Your task to perform on an android device: open app "Gmail" (install if not already installed) Image 0: 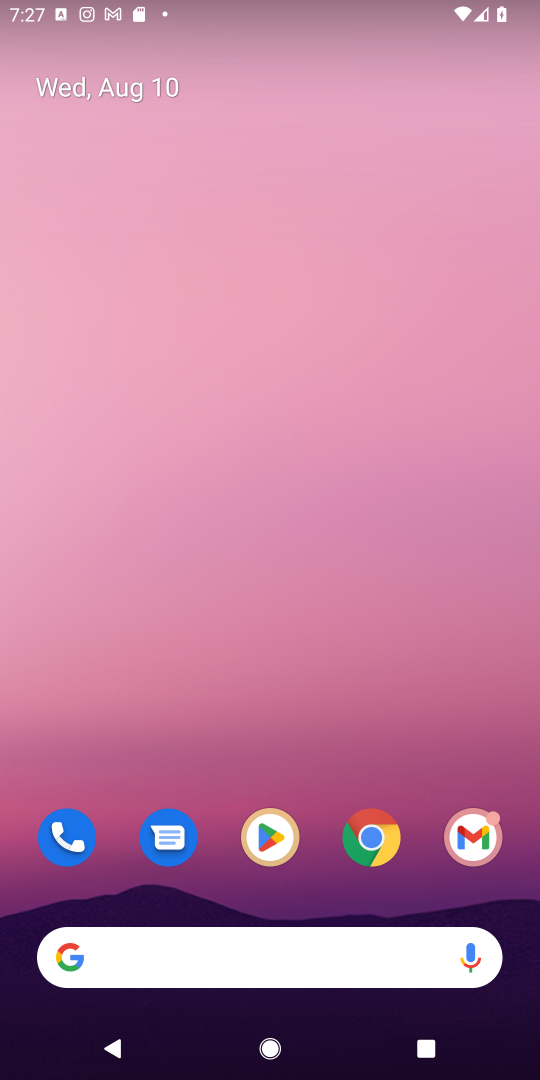
Step 0: press home button
Your task to perform on an android device: open app "Gmail" (install if not already installed) Image 1: 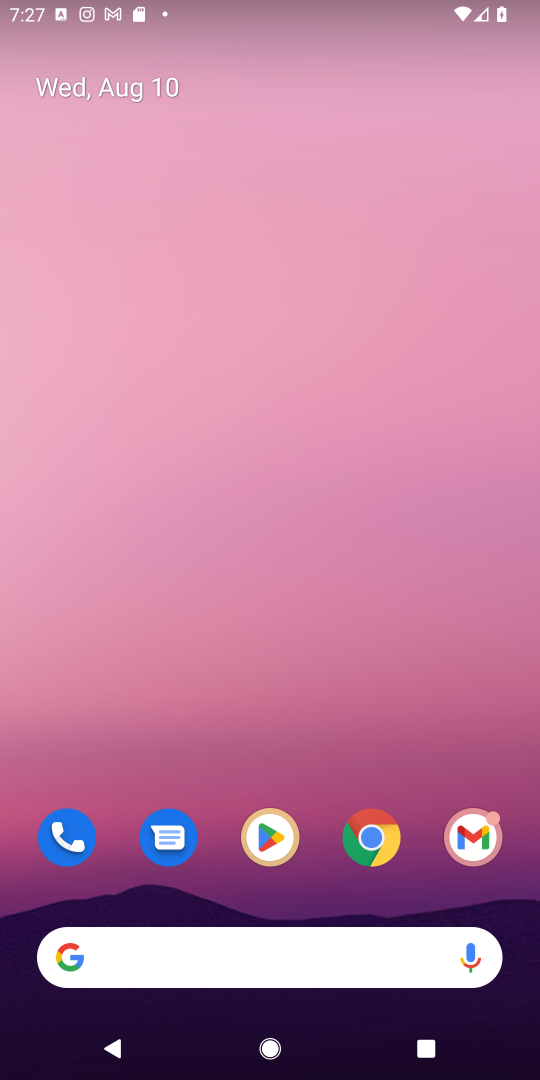
Step 1: click (260, 839)
Your task to perform on an android device: open app "Gmail" (install if not already installed) Image 2: 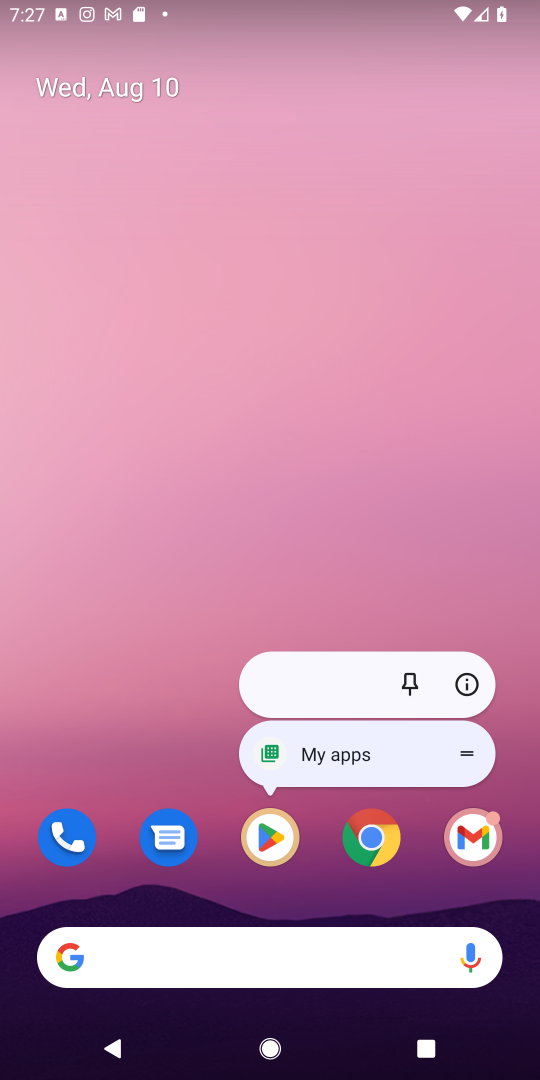
Step 2: click (264, 835)
Your task to perform on an android device: open app "Gmail" (install if not already installed) Image 3: 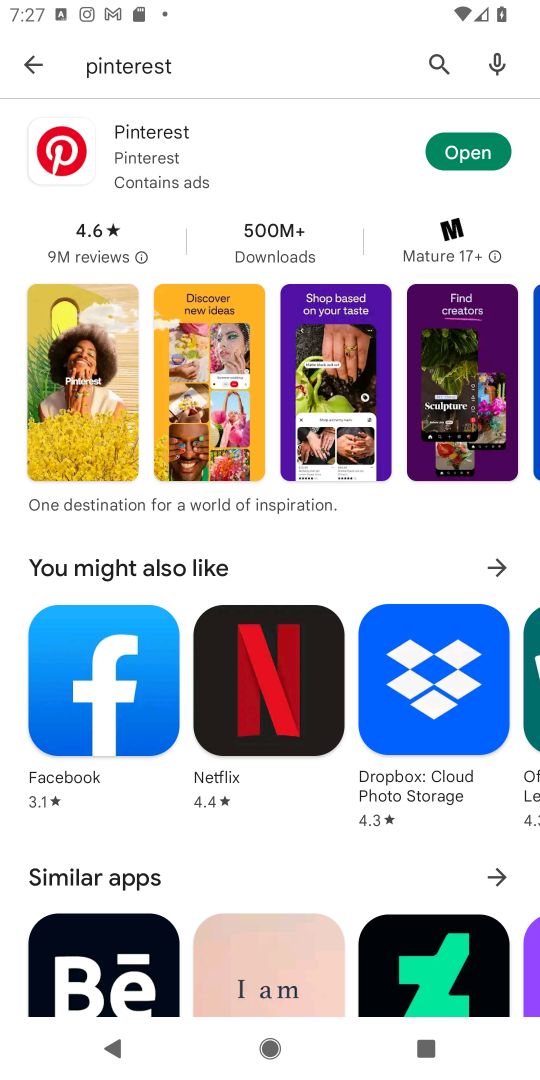
Step 3: click (443, 55)
Your task to perform on an android device: open app "Gmail" (install if not already installed) Image 4: 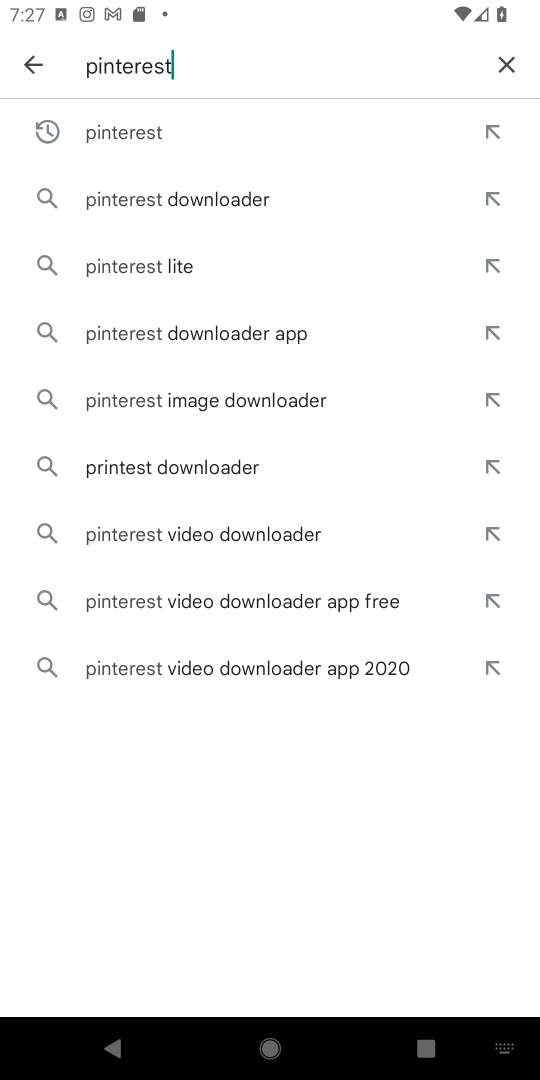
Step 4: click (499, 65)
Your task to perform on an android device: open app "Gmail" (install if not already installed) Image 5: 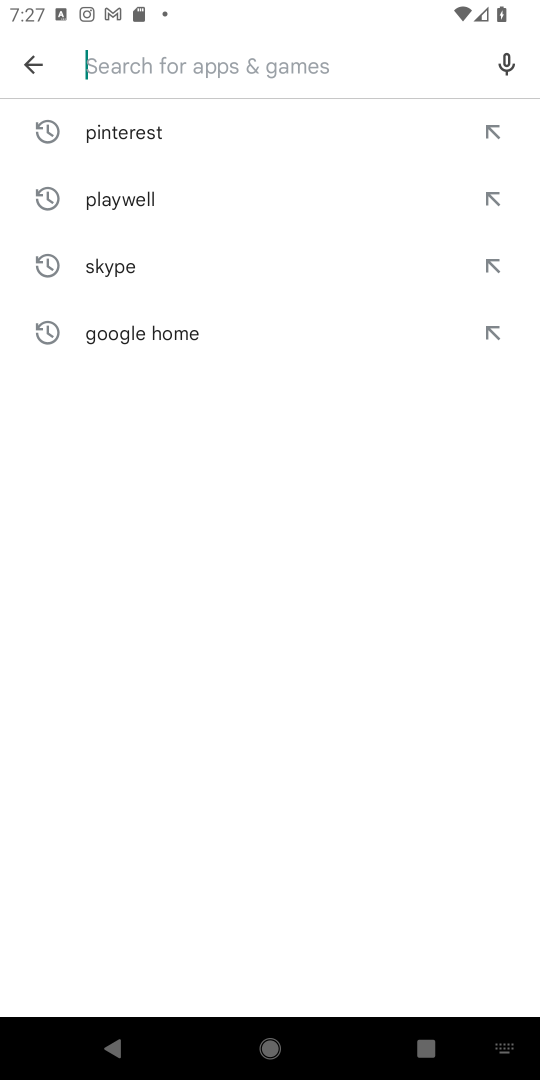
Step 5: type "Gmail"
Your task to perform on an android device: open app "Gmail" (install if not already installed) Image 6: 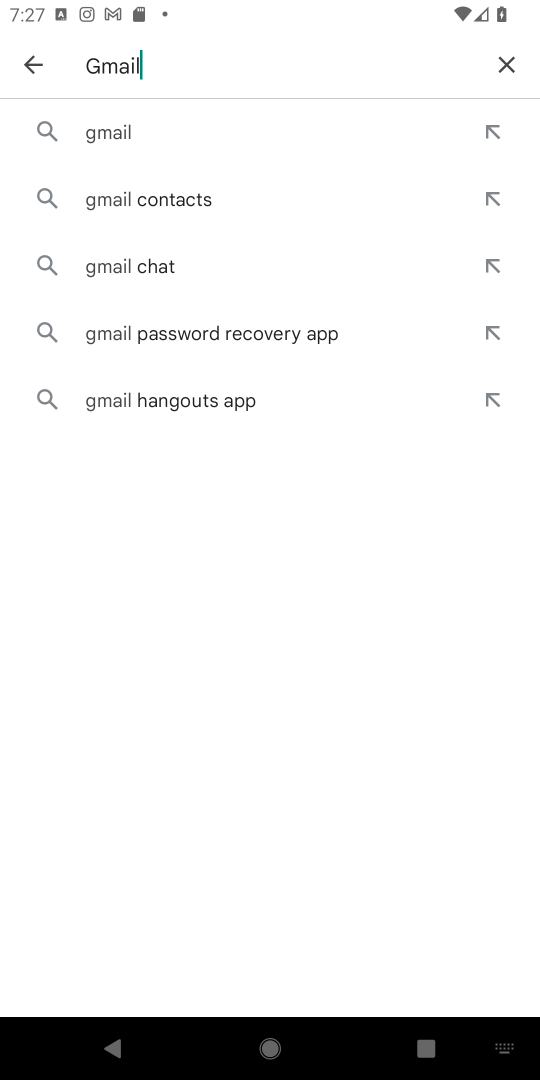
Step 6: click (121, 125)
Your task to perform on an android device: open app "Gmail" (install if not already installed) Image 7: 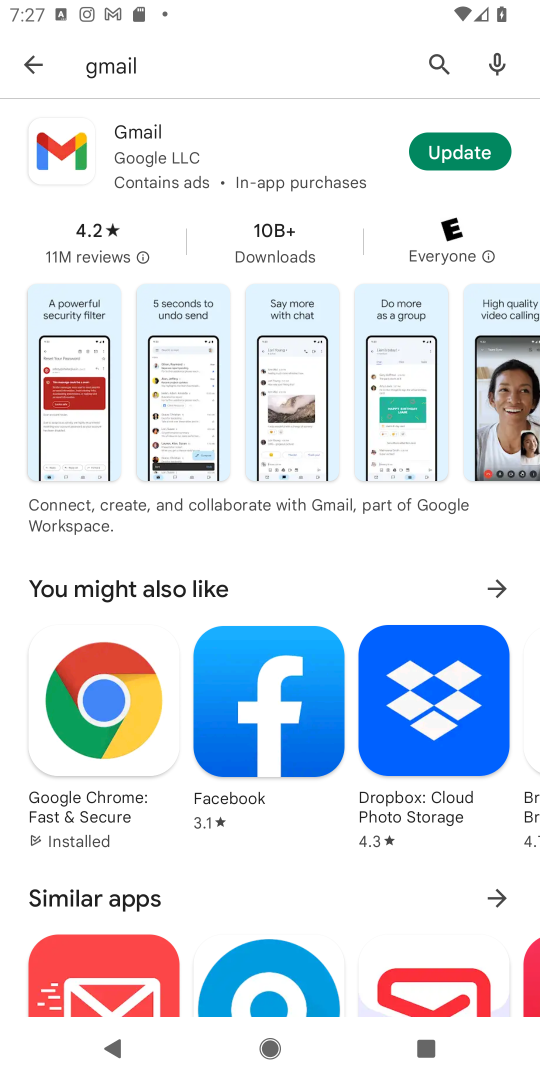
Step 7: click (157, 161)
Your task to perform on an android device: open app "Gmail" (install if not already installed) Image 8: 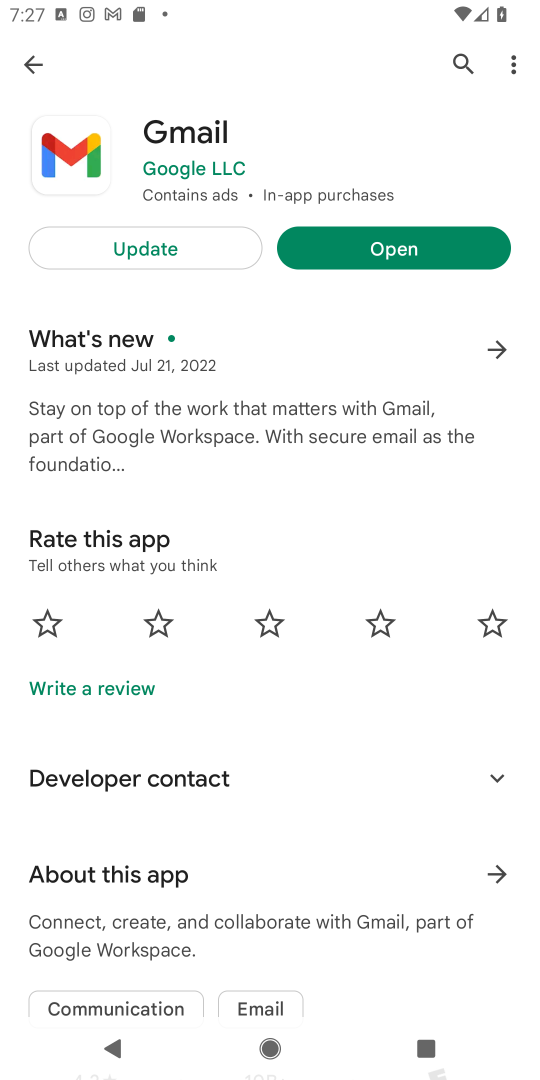
Step 8: click (400, 248)
Your task to perform on an android device: open app "Gmail" (install if not already installed) Image 9: 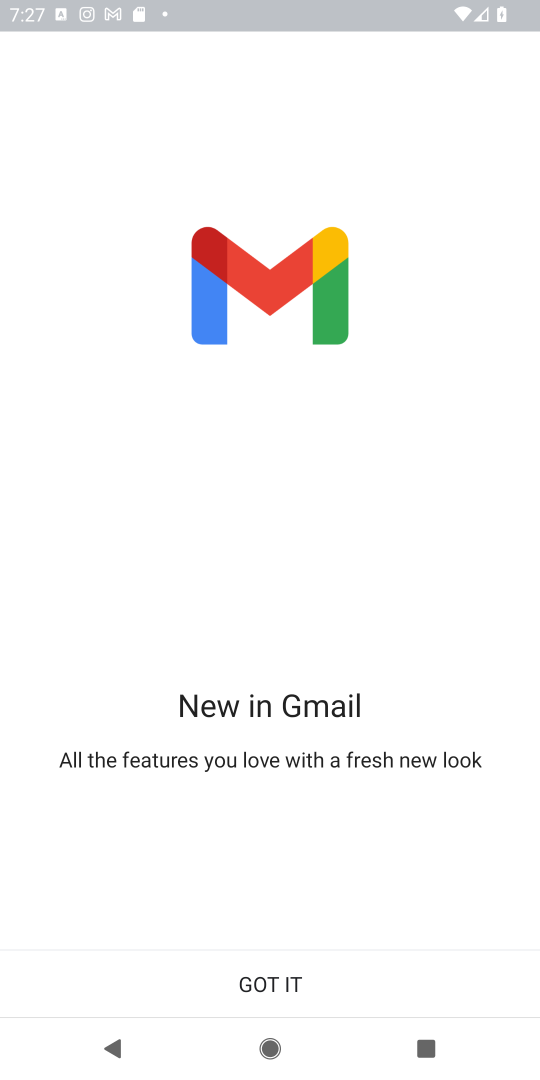
Step 9: click (263, 992)
Your task to perform on an android device: open app "Gmail" (install if not already installed) Image 10: 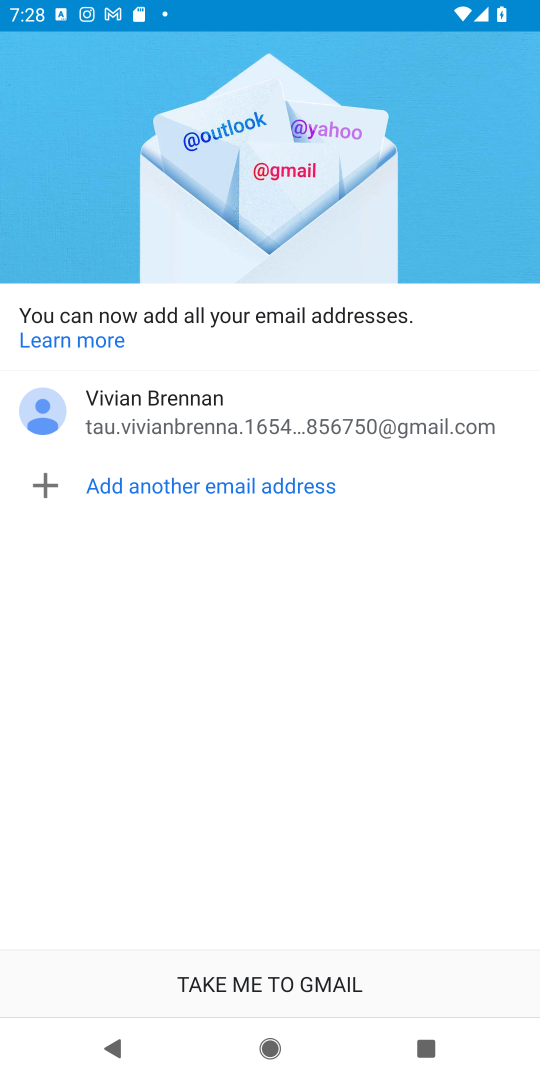
Step 10: click (270, 992)
Your task to perform on an android device: open app "Gmail" (install if not already installed) Image 11: 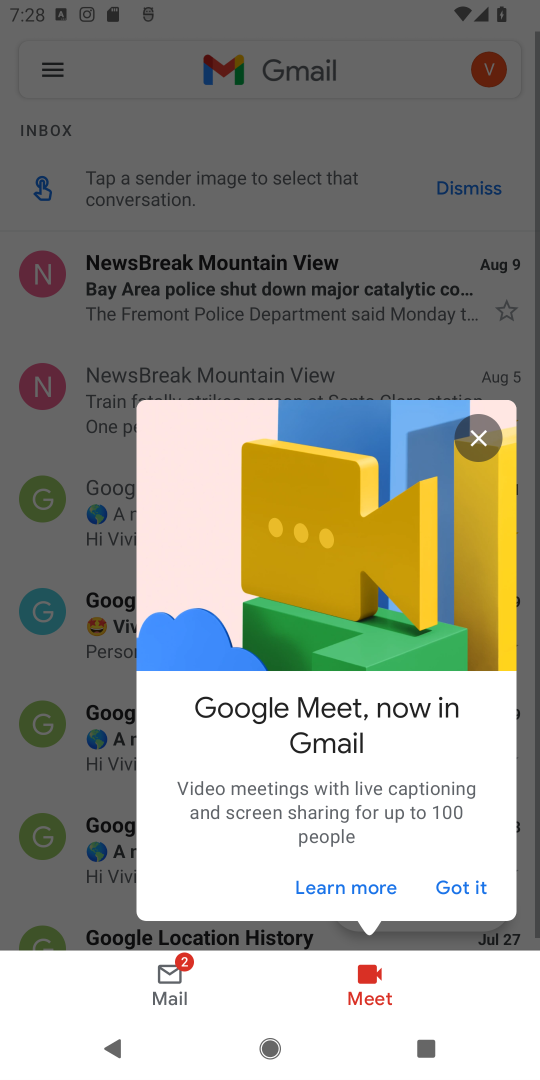
Step 11: task complete